Your task to perform on an android device: Install the eBay app Image 0: 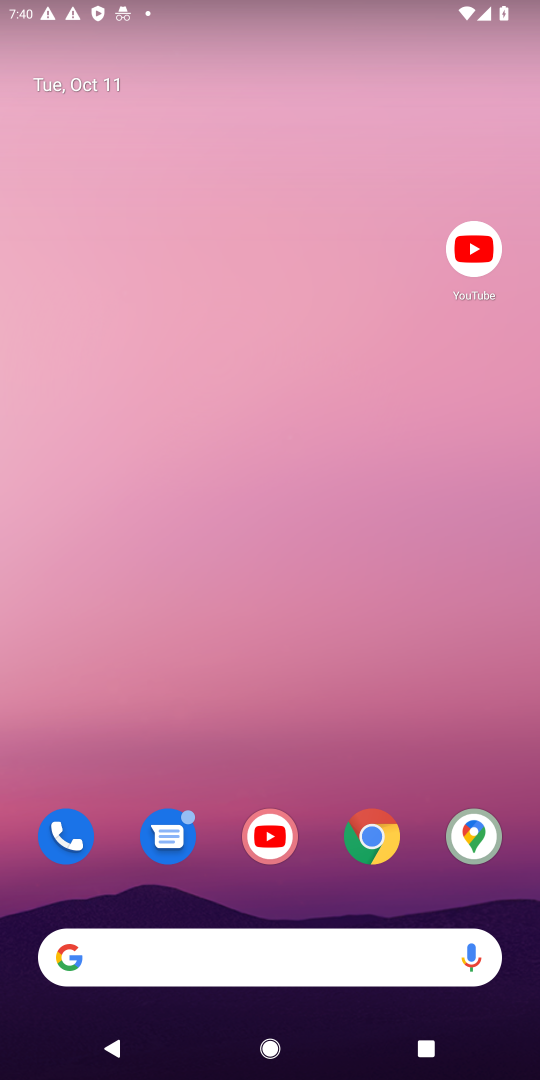
Step 0: drag from (337, 946) to (538, 203)
Your task to perform on an android device: Install the eBay app Image 1: 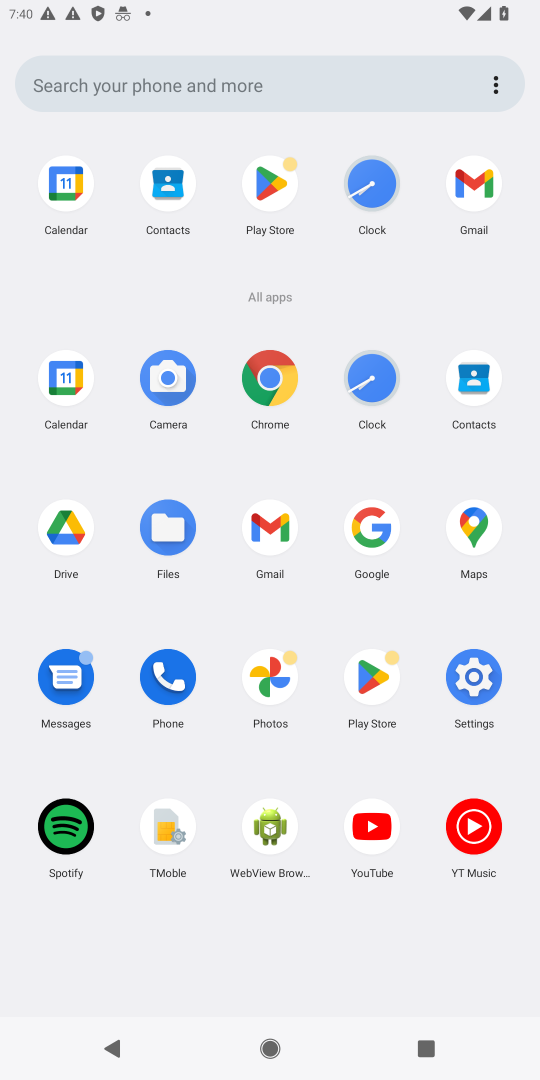
Step 1: click (361, 684)
Your task to perform on an android device: Install the eBay app Image 2: 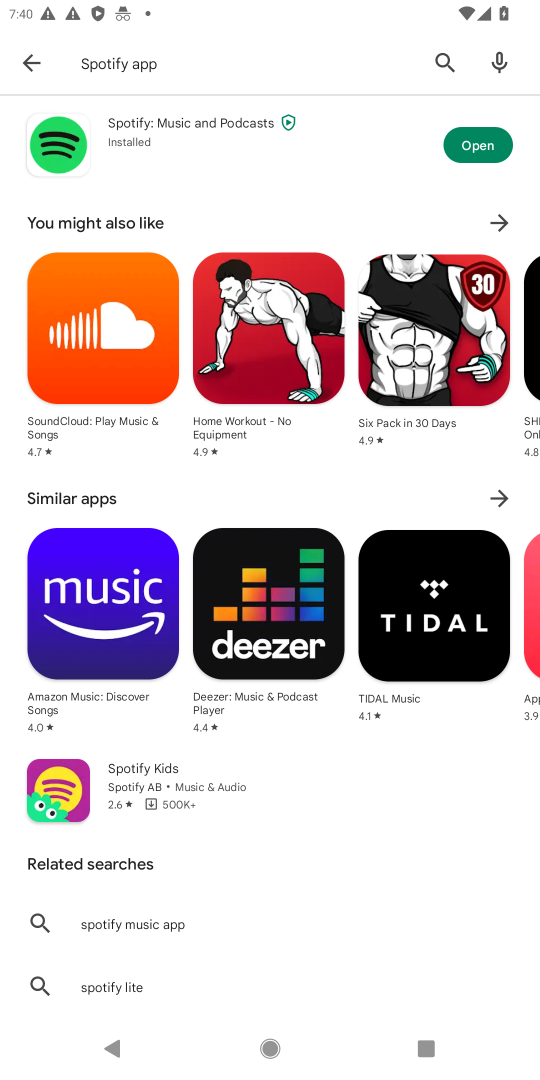
Step 2: click (446, 50)
Your task to perform on an android device: Install the eBay app Image 3: 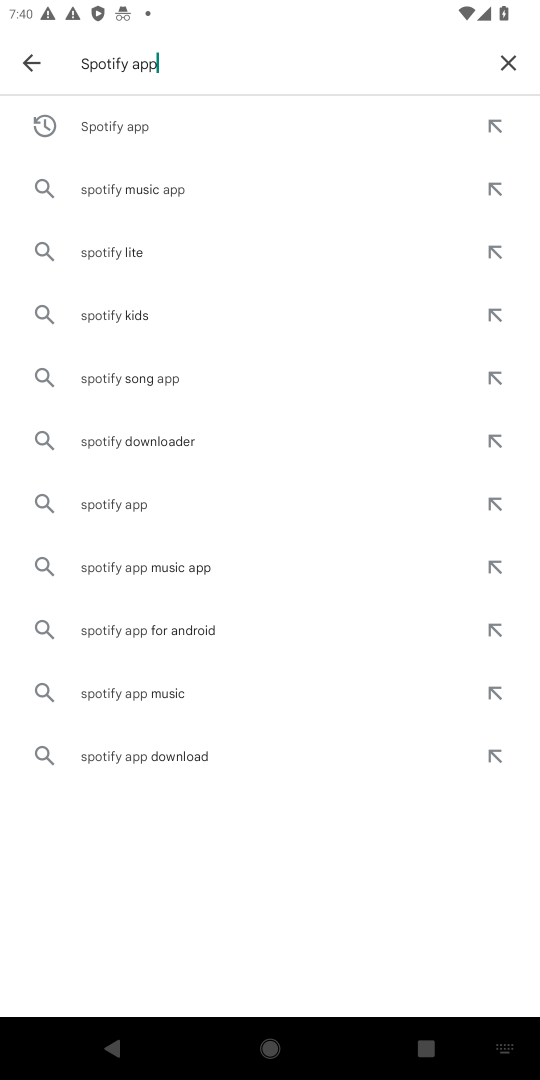
Step 3: click (513, 59)
Your task to perform on an android device: Install the eBay app Image 4: 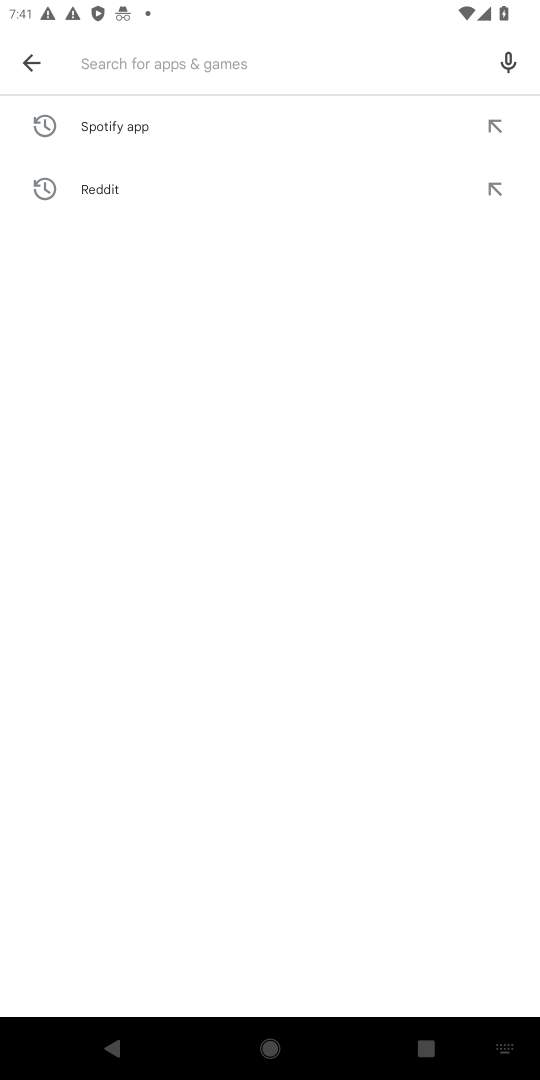
Step 4: type "eBay app"
Your task to perform on an android device: Install the eBay app Image 5: 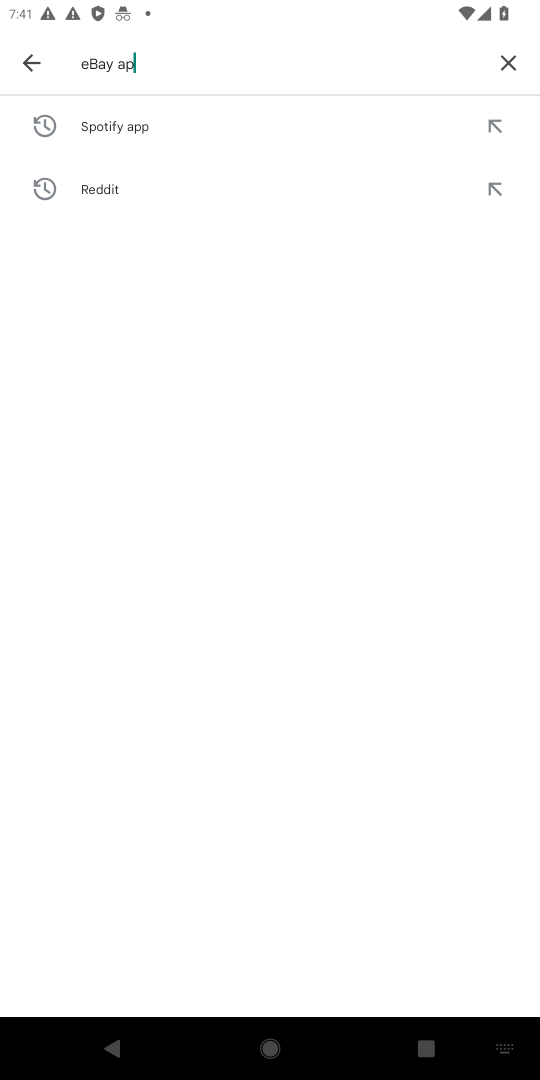
Step 5: press enter
Your task to perform on an android device: Install the eBay app Image 6: 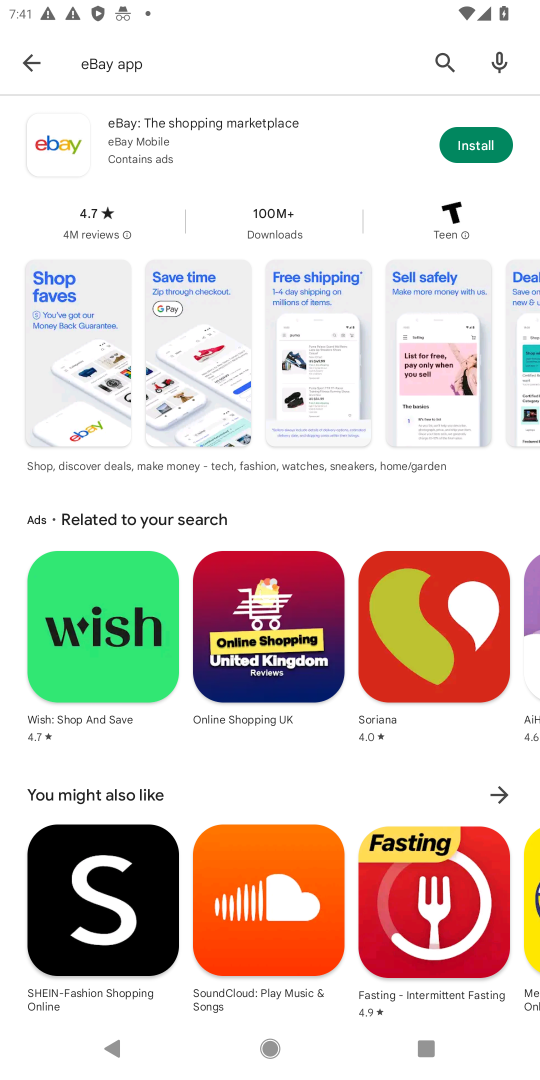
Step 6: click (476, 141)
Your task to perform on an android device: Install the eBay app Image 7: 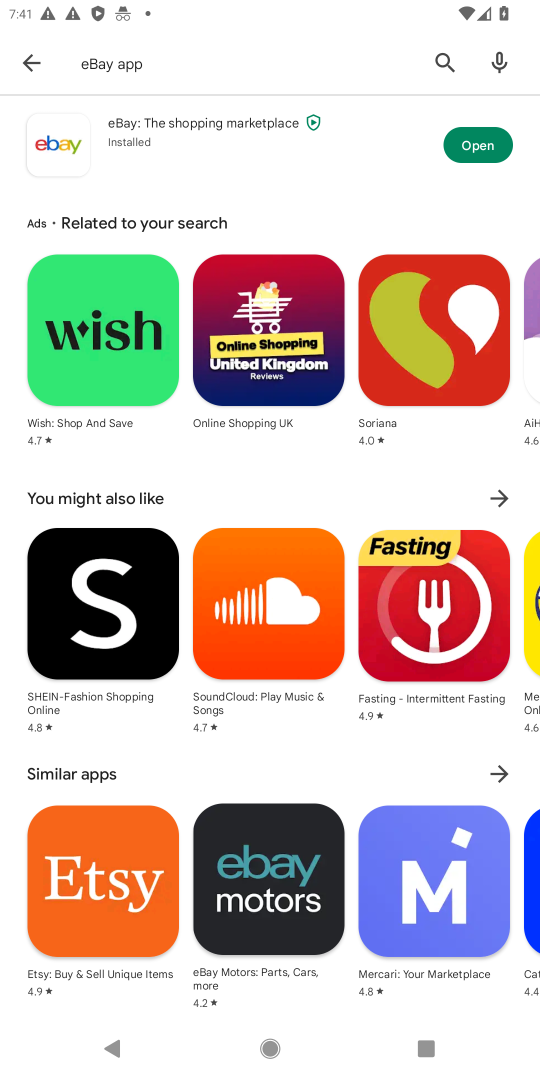
Step 7: task complete